Your task to perform on an android device: Go to battery settings Image 0: 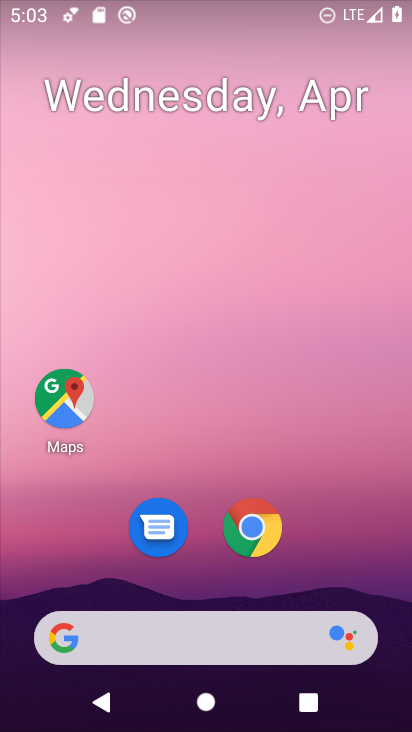
Step 0: drag from (345, 584) to (317, 3)
Your task to perform on an android device: Go to battery settings Image 1: 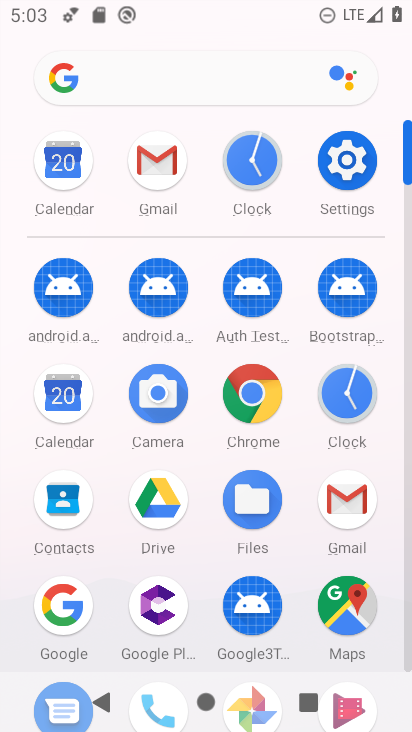
Step 1: click (344, 162)
Your task to perform on an android device: Go to battery settings Image 2: 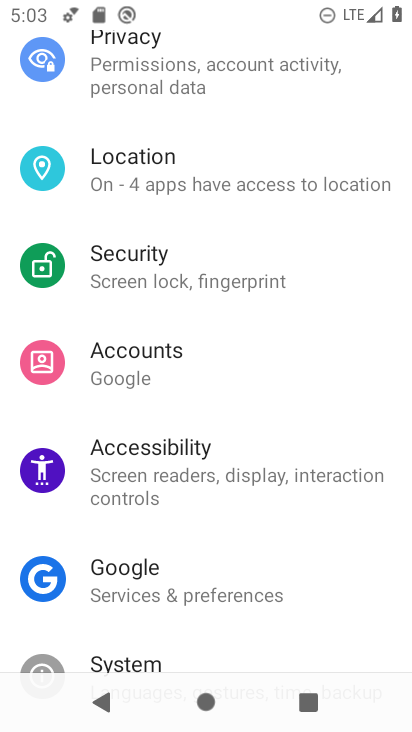
Step 2: drag from (289, 295) to (300, 496)
Your task to perform on an android device: Go to battery settings Image 3: 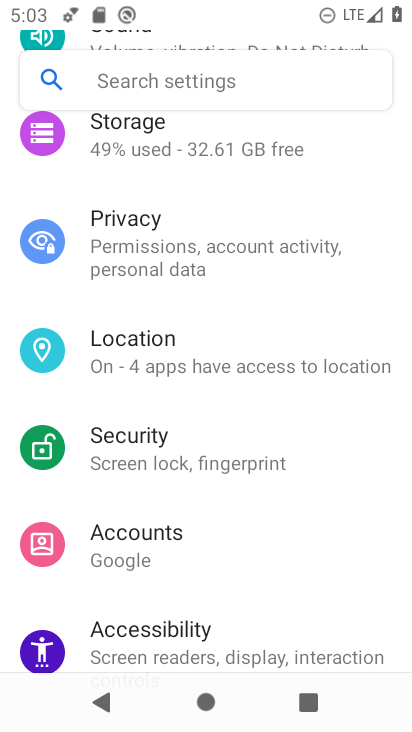
Step 3: drag from (257, 217) to (281, 436)
Your task to perform on an android device: Go to battery settings Image 4: 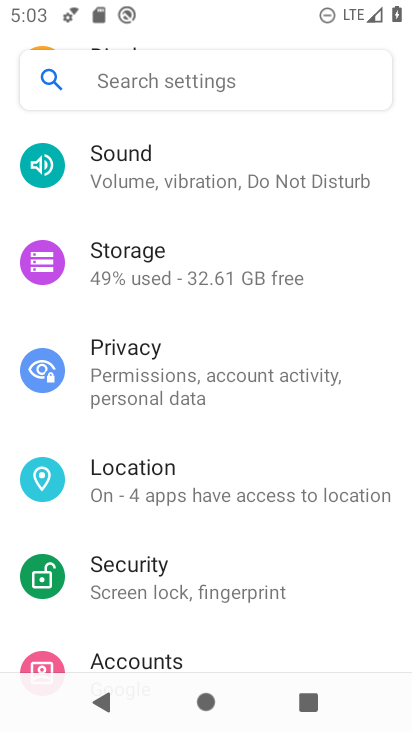
Step 4: drag from (285, 252) to (300, 495)
Your task to perform on an android device: Go to battery settings Image 5: 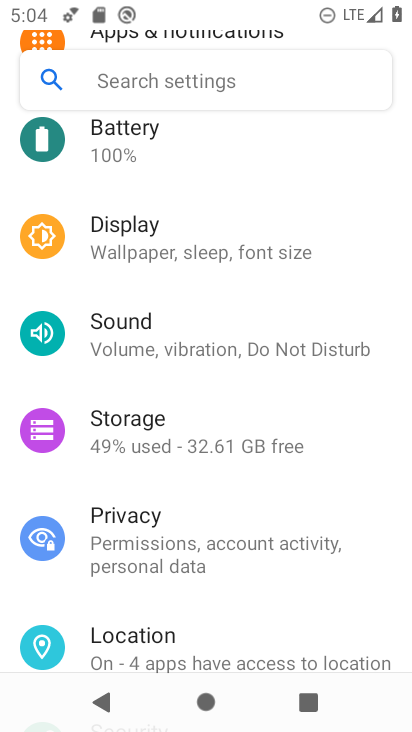
Step 5: click (113, 144)
Your task to perform on an android device: Go to battery settings Image 6: 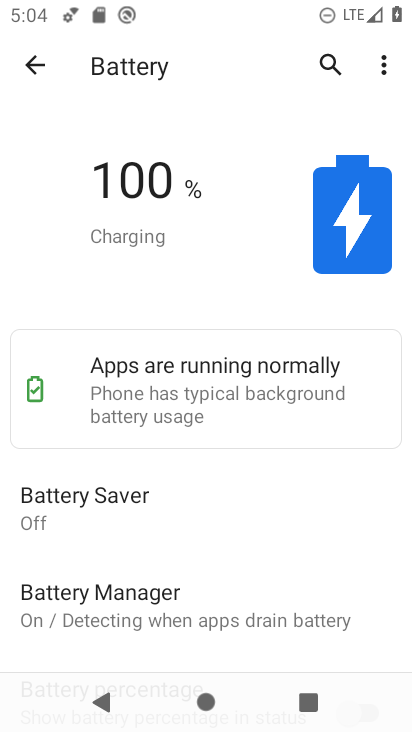
Step 6: task complete